Your task to perform on an android device: visit the assistant section in the google photos Image 0: 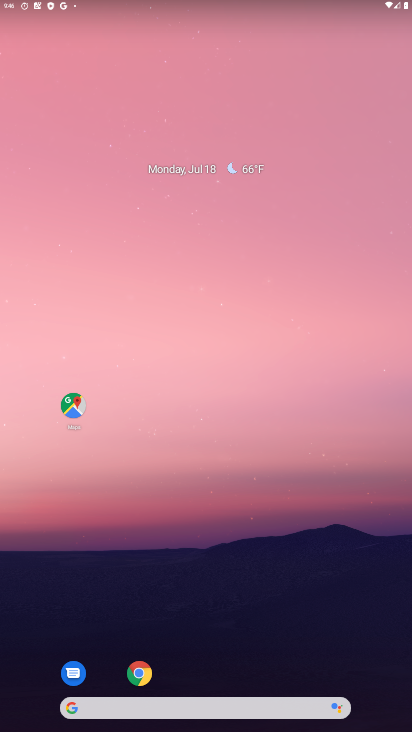
Step 0: drag from (201, 670) to (247, 107)
Your task to perform on an android device: visit the assistant section in the google photos Image 1: 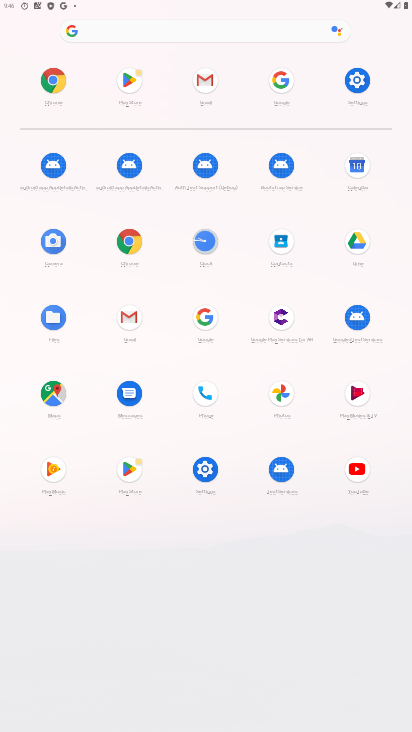
Step 1: click (280, 392)
Your task to perform on an android device: visit the assistant section in the google photos Image 2: 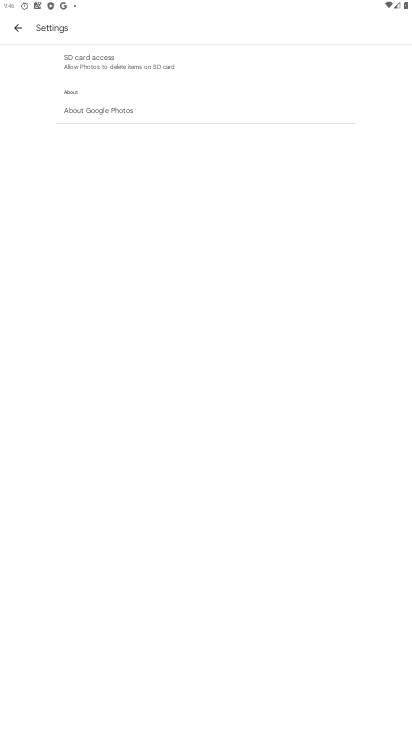
Step 2: task complete